Your task to perform on an android device: Go to sound settings Image 0: 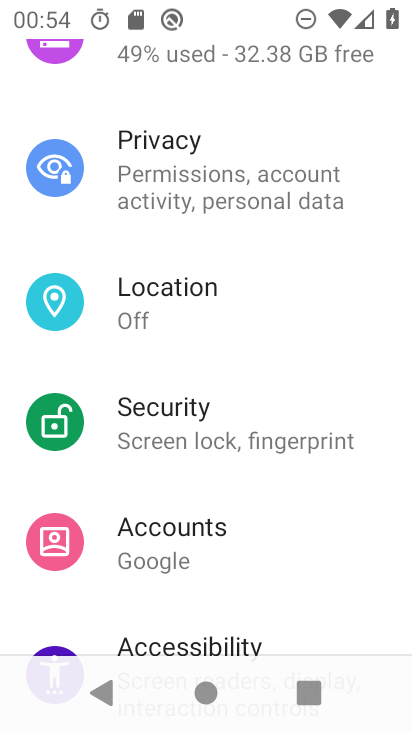
Step 0: drag from (232, 302) to (244, 550)
Your task to perform on an android device: Go to sound settings Image 1: 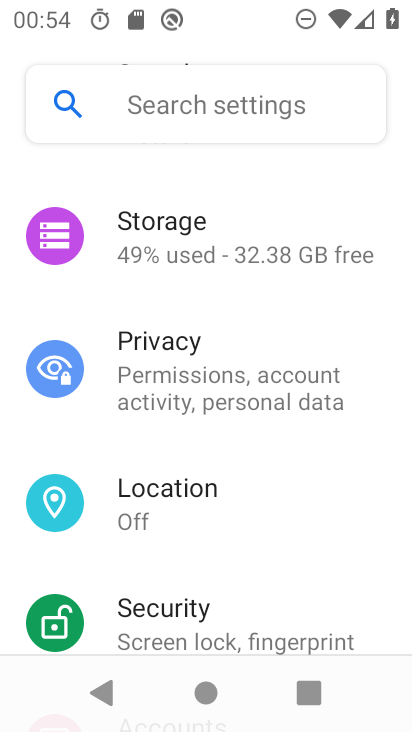
Step 1: drag from (244, 283) to (275, 460)
Your task to perform on an android device: Go to sound settings Image 2: 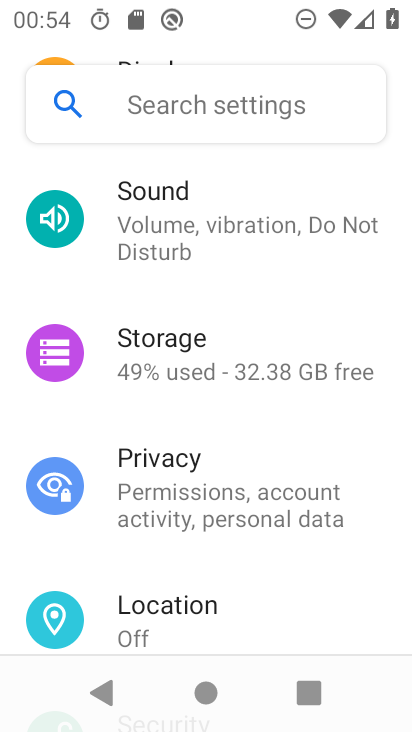
Step 2: click (220, 221)
Your task to perform on an android device: Go to sound settings Image 3: 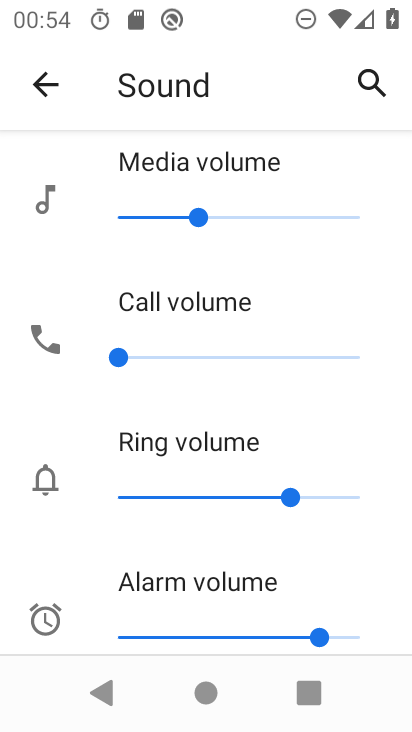
Step 3: task complete